Your task to perform on an android device: Find coffee shops on Maps Image 0: 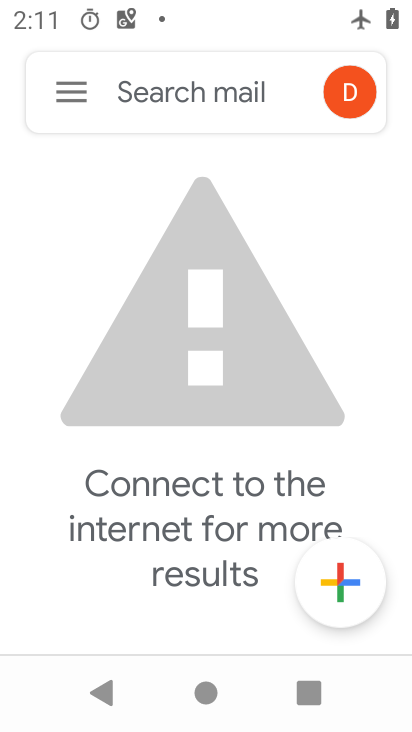
Step 0: press home button
Your task to perform on an android device: Find coffee shops on Maps Image 1: 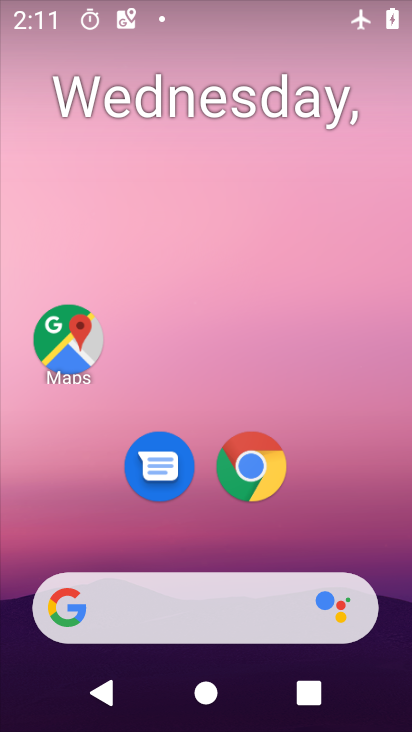
Step 1: drag from (293, 1) to (216, 491)
Your task to perform on an android device: Find coffee shops on Maps Image 2: 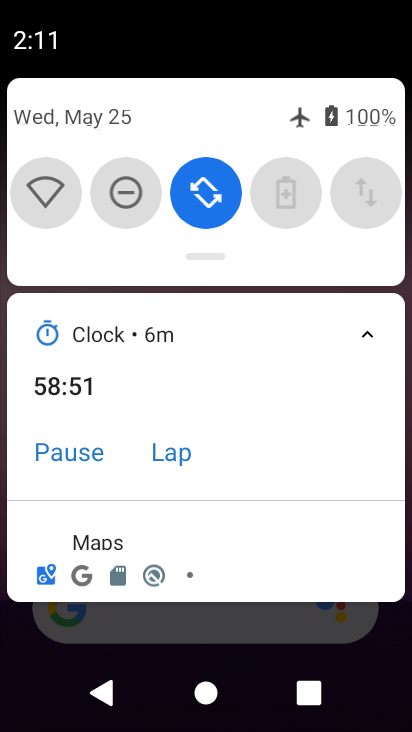
Step 2: drag from (271, 232) to (245, 587)
Your task to perform on an android device: Find coffee shops on Maps Image 3: 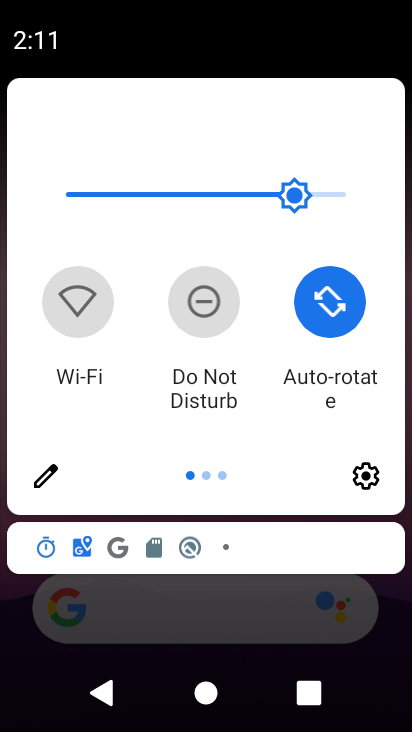
Step 3: drag from (352, 407) to (2, 420)
Your task to perform on an android device: Find coffee shops on Maps Image 4: 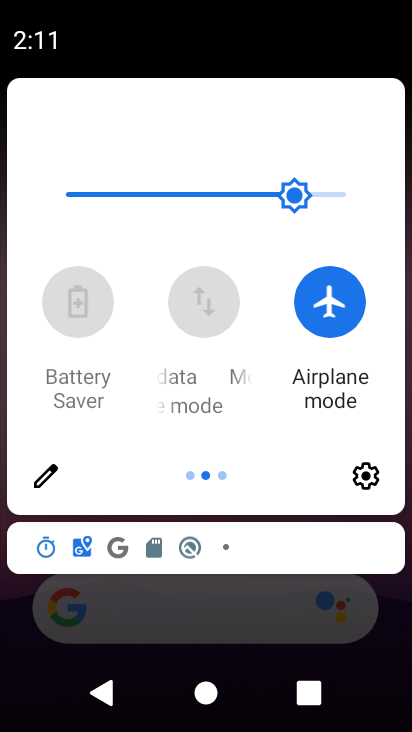
Step 4: click (338, 315)
Your task to perform on an android device: Find coffee shops on Maps Image 5: 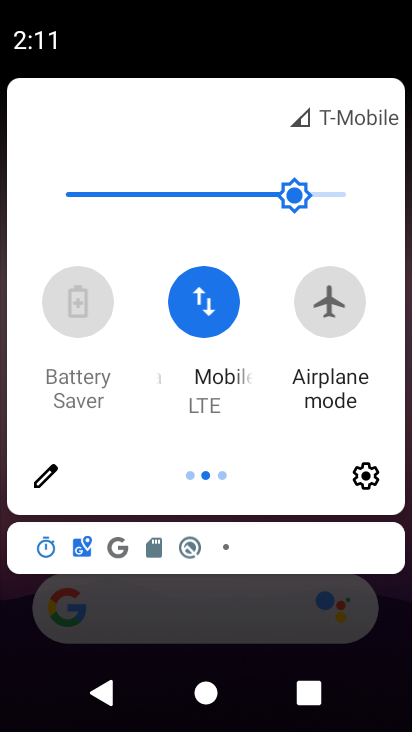
Step 5: drag from (356, 670) to (277, 198)
Your task to perform on an android device: Find coffee shops on Maps Image 6: 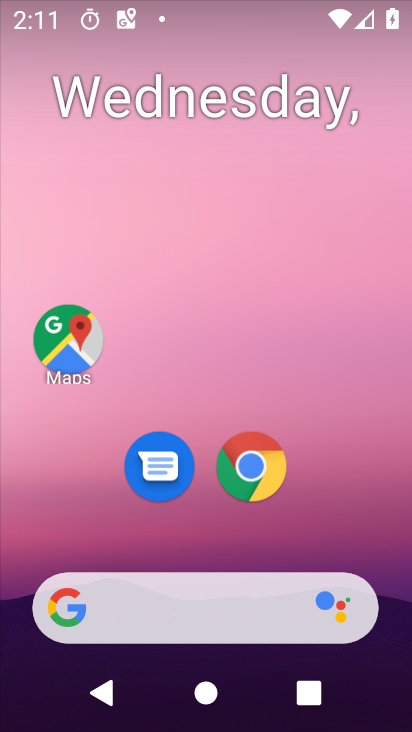
Step 6: click (68, 360)
Your task to perform on an android device: Find coffee shops on Maps Image 7: 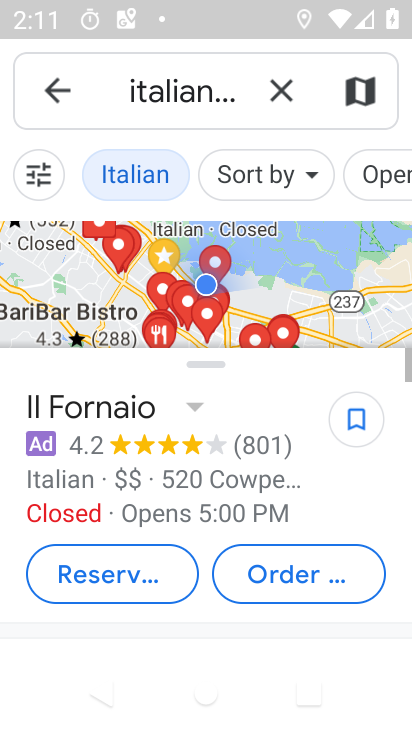
Step 7: click (277, 87)
Your task to perform on an android device: Find coffee shops on Maps Image 8: 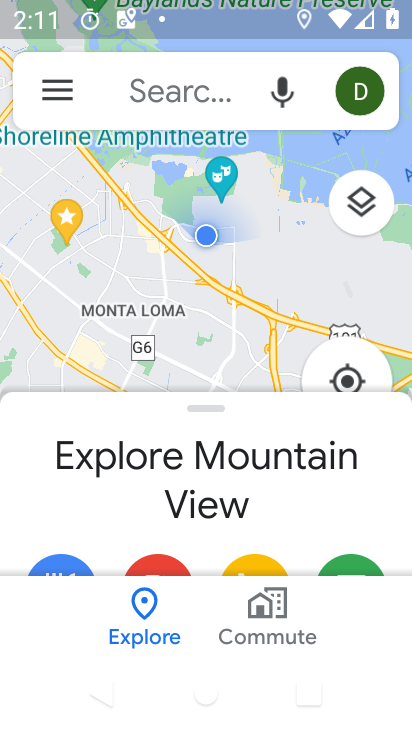
Step 8: click (207, 86)
Your task to perform on an android device: Find coffee shops on Maps Image 9: 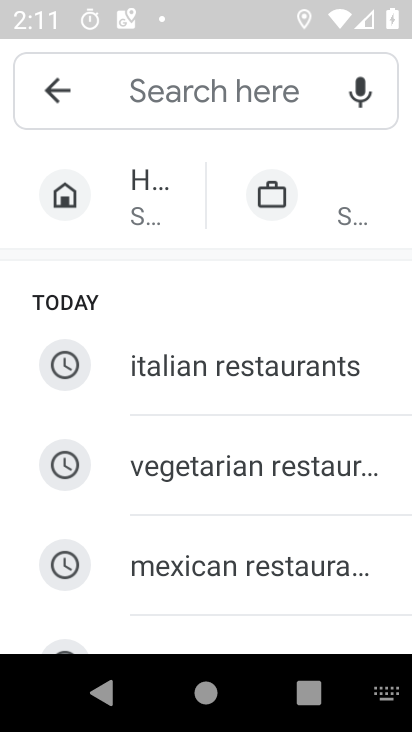
Step 9: drag from (266, 527) to (258, 130)
Your task to perform on an android device: Find coffee shops on Maps Image 10: 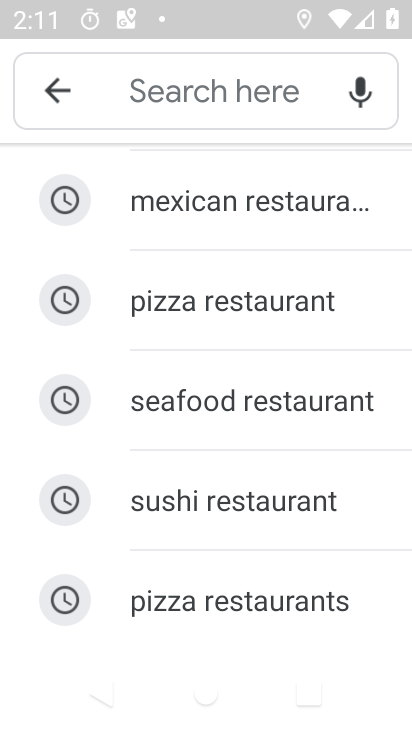
Step 10: drag from (238, 535) to (215, 249)
Your task to perform on an android device: Find coffee shops on Maps Image 11: 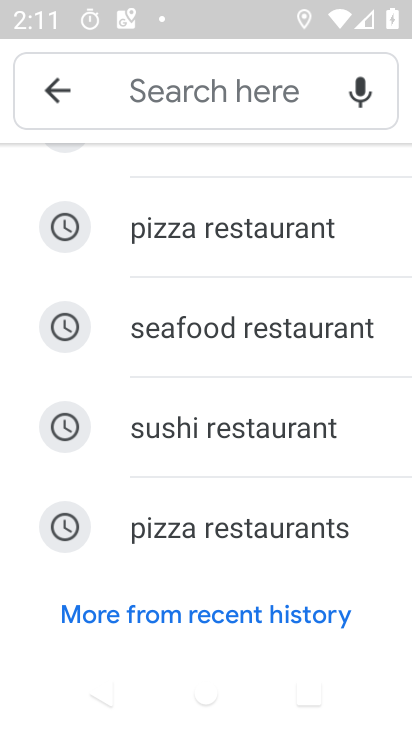
Step 11: click (181, 77)
Your task to perform on an android device: Find coffee shops on Maps Image 12: 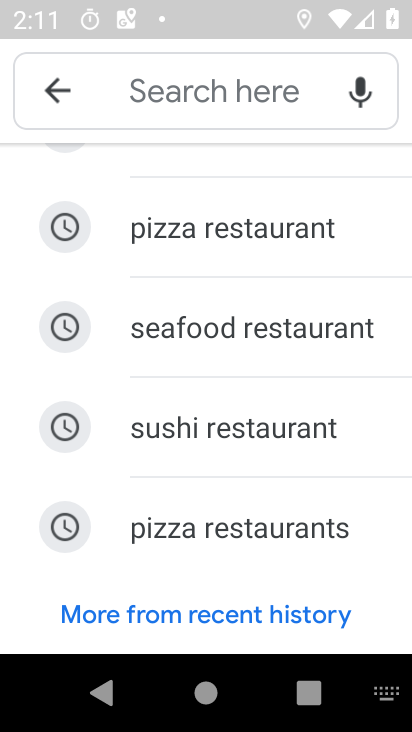
Step 12: click (181, 77)
Your task to perform on an android device: Find coffee shops on Maps Image 13: 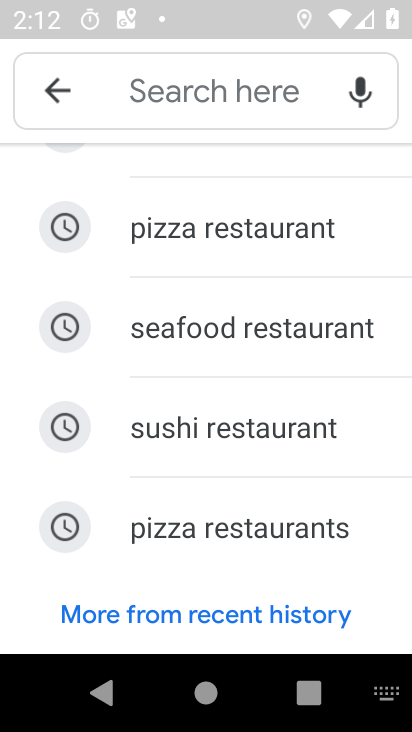
Step 13: type "coffee shops"
Your task to perform on an android device: Find coffee shops on Maps Image 14: 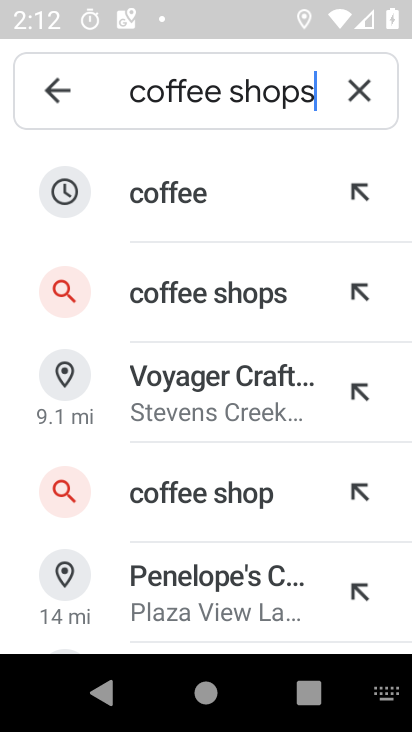
Step 14: click (267, 281)
Your task to perform on an android device: Find coffee shops on Maps Image 15: 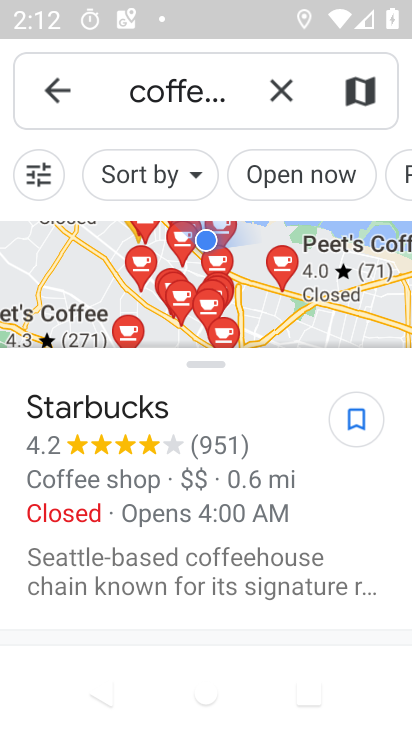
Step 15: task complete